Your task to perform on an android device: Toggle the flashlight Image 0: 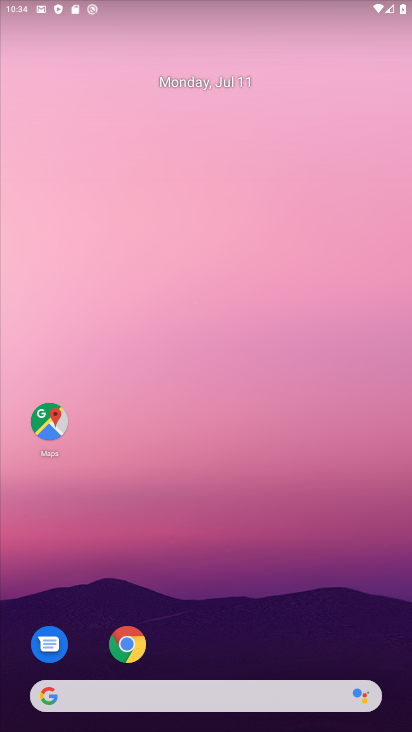
Step 0: drag from (286, 631) to (259, 264)
Your task to perform on an android device: Toggle the flashlight Image 1: 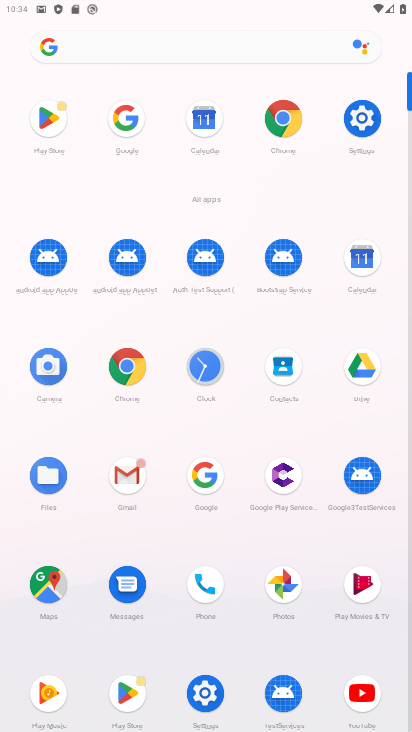
Step 1: click (366, 113)
Your task to perform on an android device: Toggle the flashlight Image 2: 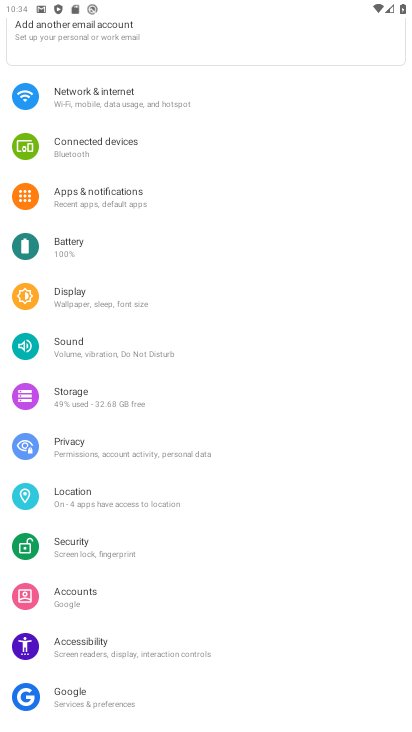
Step 2: task complete